Your task to perform on an android device: turn notification dots on Image 0: 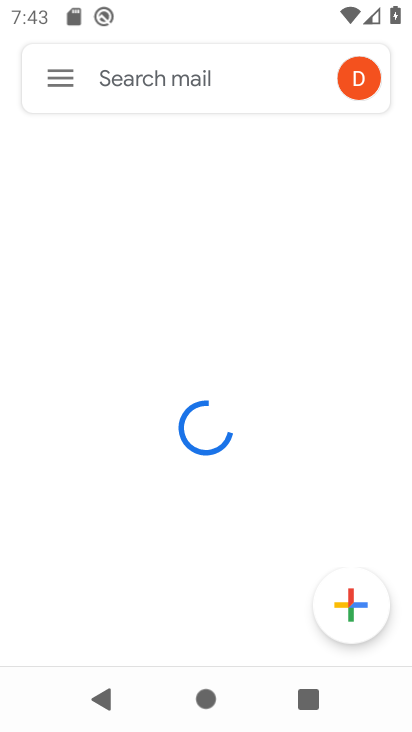
Step 0: press home button
Your task to perform on an android device: turn notification dots on Image 1: 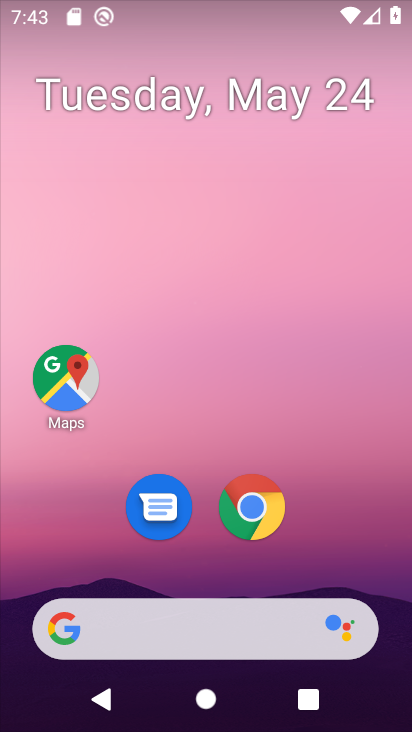
Step 1: drag from (147, 626) to (275, 140)
Your task to perform on an android device: turn notification dots on Image 2: 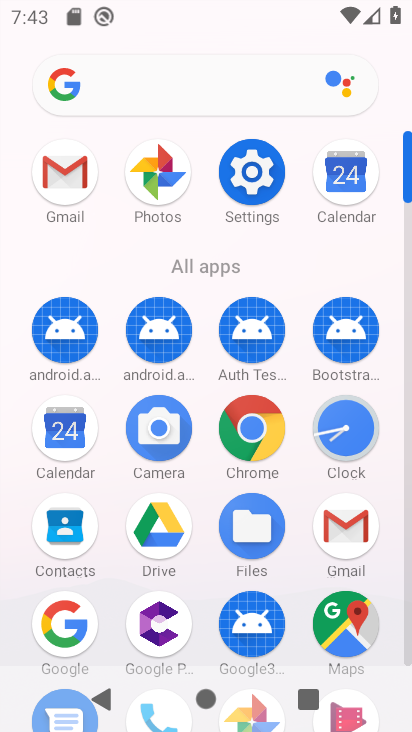
Step 2: click (239, 185)
Your task to perform on an android device: turn notification dots on Image 3: 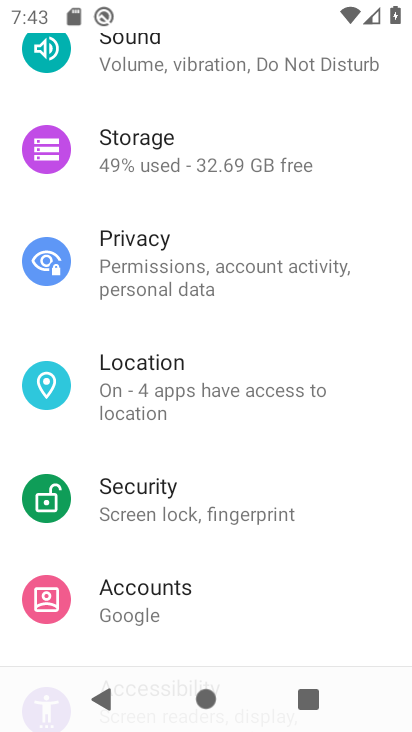
Step 3: drag from (295, 125) to (274, 543)
Your task to perform on an android device: turn notification dots on Image 4: 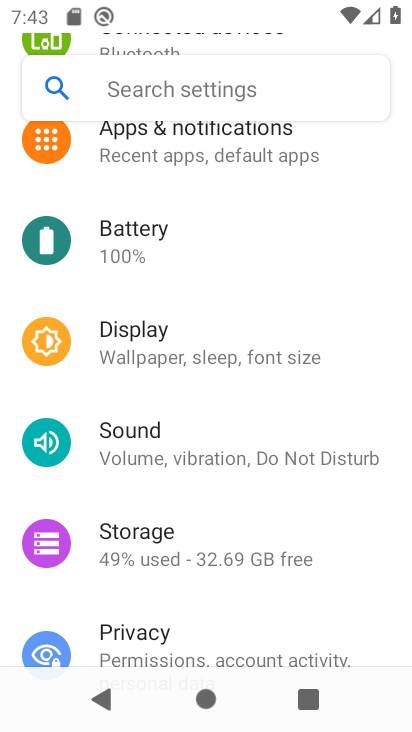
Step 4: drag from (271, 236) to (226, 493)
Your task to perform on an android device: turn notification dots on Image 5: 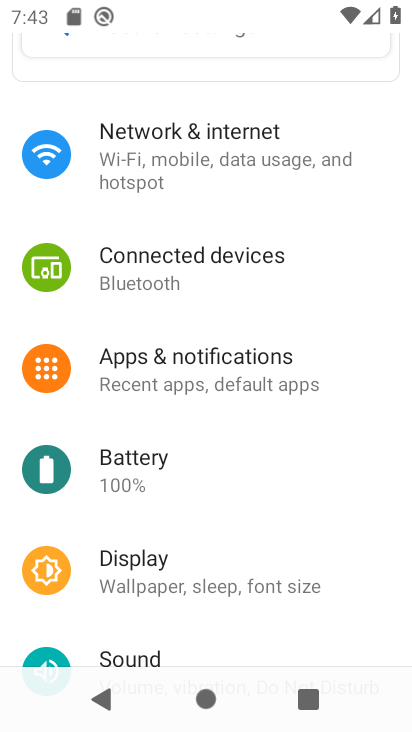
Step 5: click (215, 371)
Your task to perform on an android device: turn notification dots on Image 6: 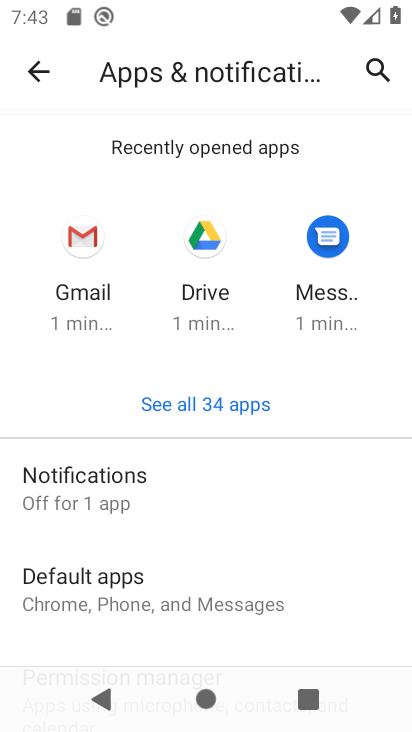
Step 6: click (114, 478)
Your task to perform on an android device: turn notification dots on Image 7: 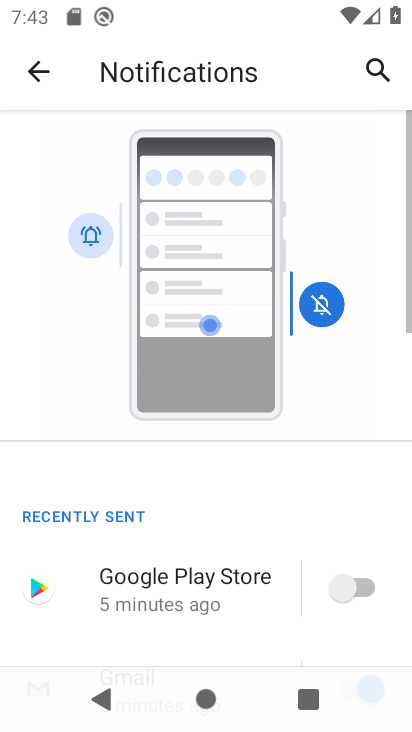
Step 7: drag from (193, 519) to (318, 122)
Your task to perform on an android device: turn notification dots on Image 8: 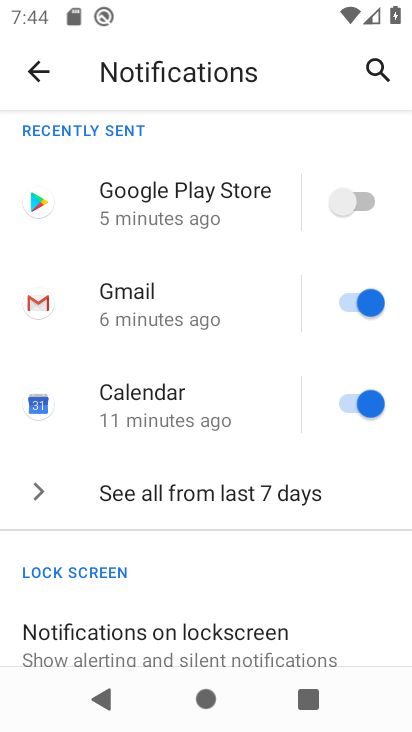
Step 8: drag from (201, 540) to (298, 169)
Your task to perform on an android device: turn notification dots on Image 9: 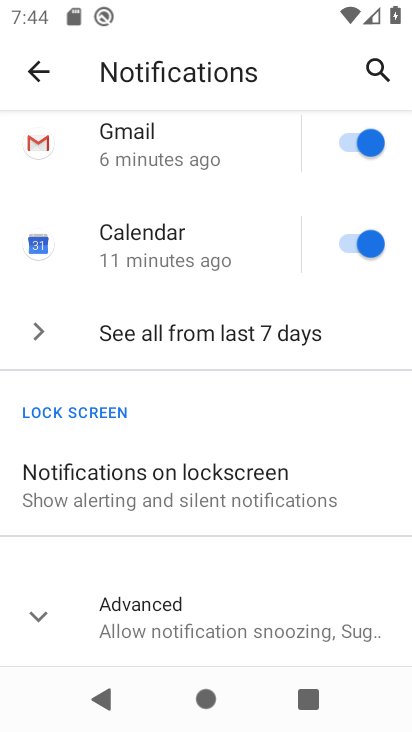
Step 9: click (188, 618)
Your task to perform on an android device: turn notification dots on Image 10: 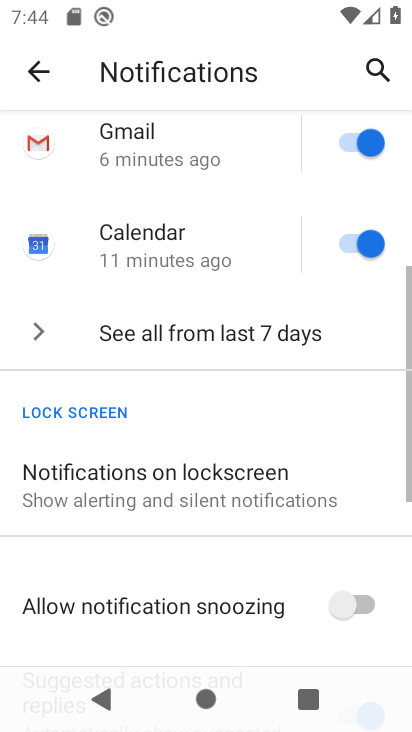
Step 10: task complete